Your task to perform on an android device: turn pop-ups on in chrome Image 0: 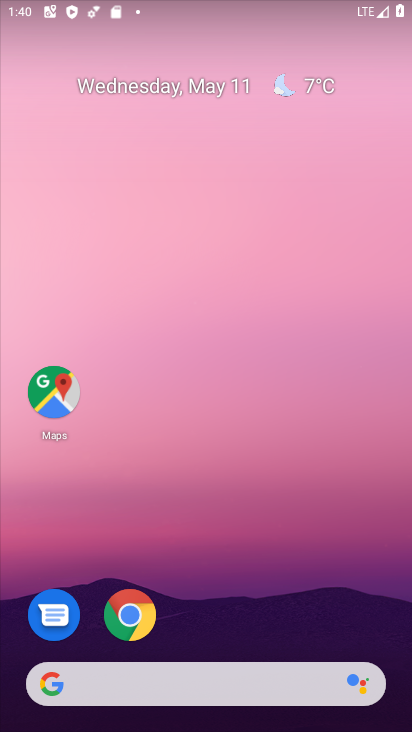
Step 0: click (132, 613)
Your task to perform on an android device: turn pop-ups on in chrome Image 1: 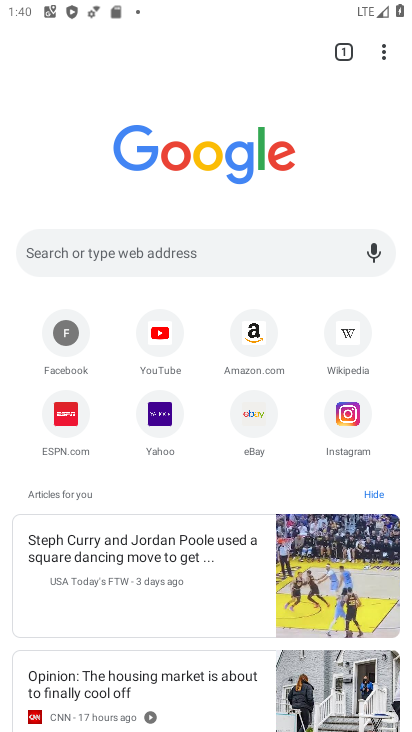
Step 1: drag from (384, 45) to (205, 447)
Your task to perform on an android device: turn pop-ups on in chrome Image 2: 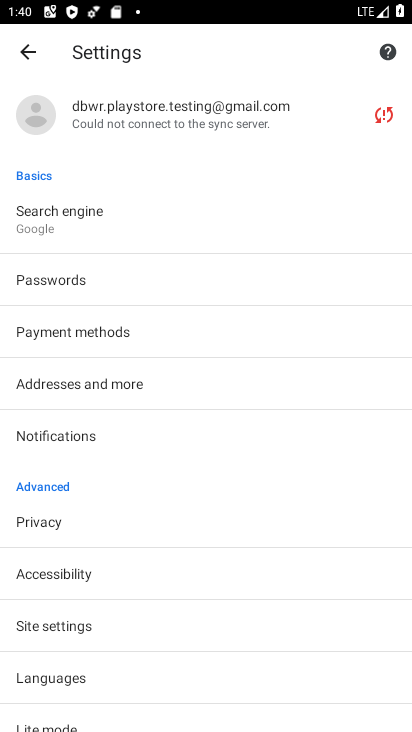
Step 2: drag from (182, 689) to (292, 256)
Your task to perform on an android device: turn pop-ups on in chrome Image 3: 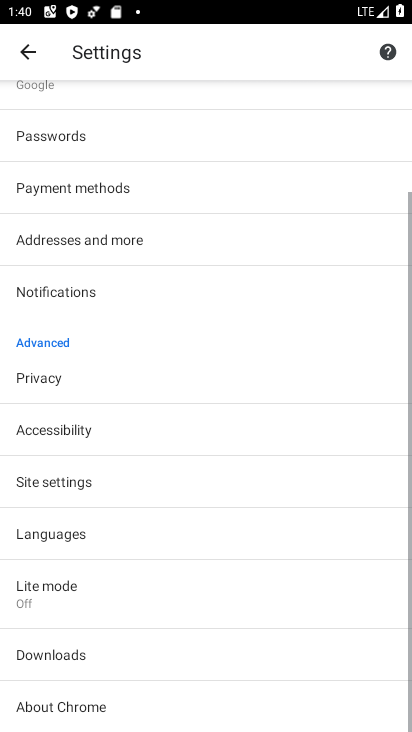
Step 3: click (90, 474)
Your task to perform on an android device: turn pop-ups on in chrome Image 4: 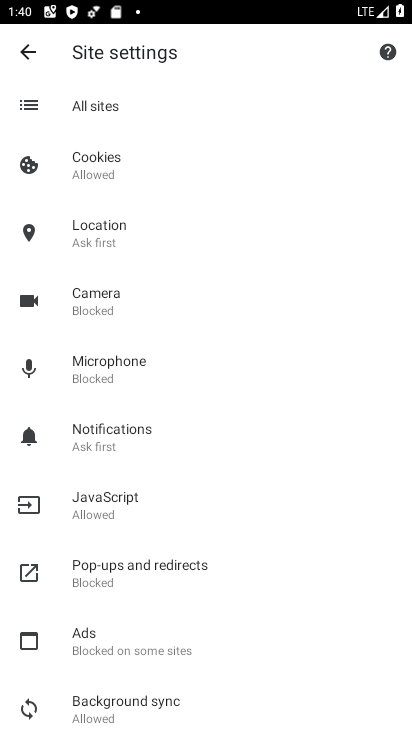
Step 4: click (154, 585)
Your task to perform on an android device: turn pop-ups on in chrome Image 5: 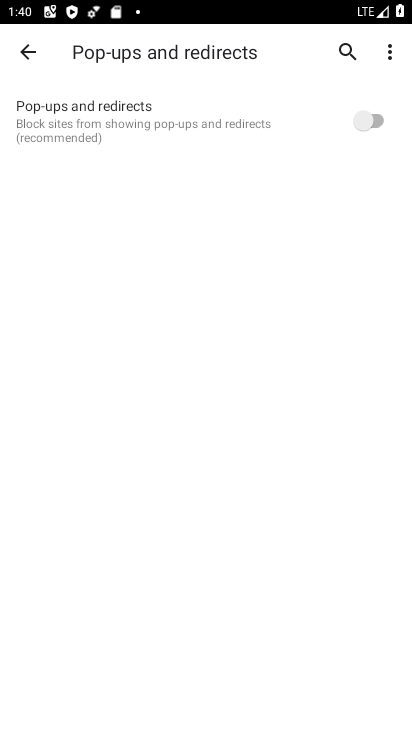
Step 5: click (350, 113)
Your task to perform on an android device: turn pop-ups on in chrome Image 6: 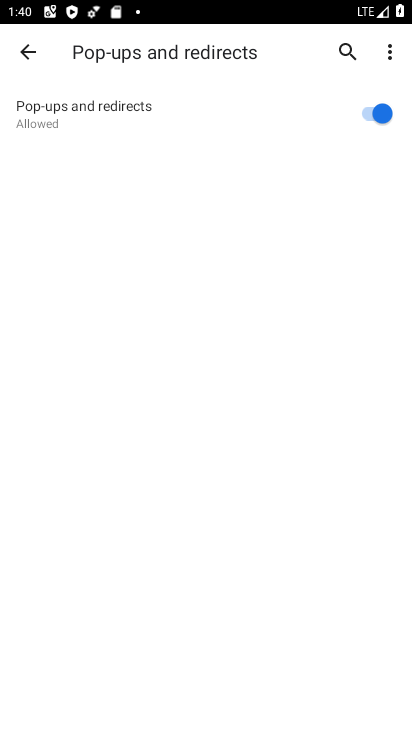
Step 6: task complete